Your task to perform on an android device: remove spam from my inbox in the gmail app Image 0: 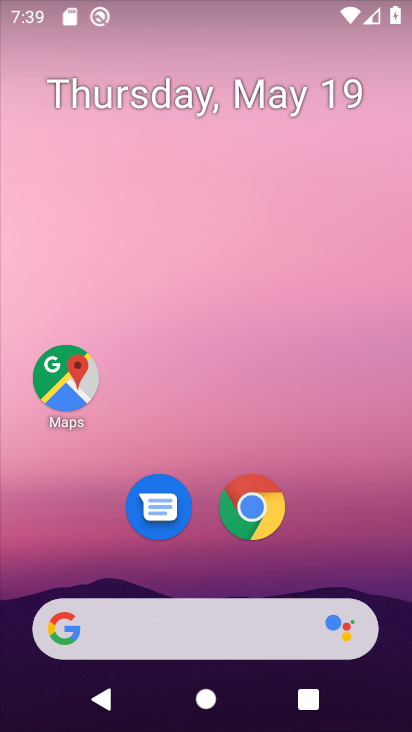
Step 0: drag from (294, 562) to (253, 121)
Your task to perform on an android device: remove spam from my inbox in the gmail app Image 1: 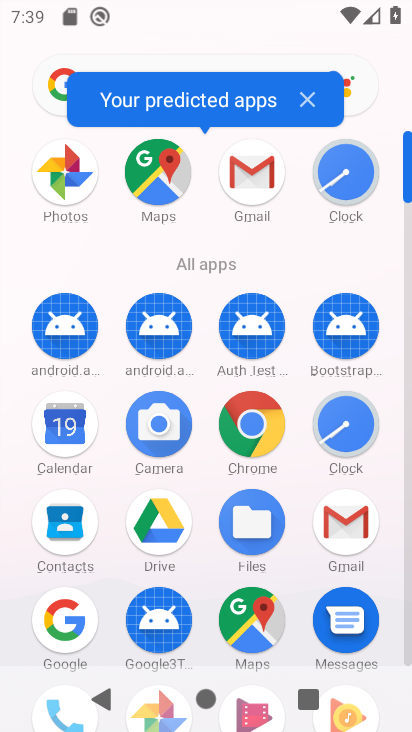
Step 1: click (263, 176)
Your task to perform on an android device: remove spam from my inbox in the gmail app Image 2: 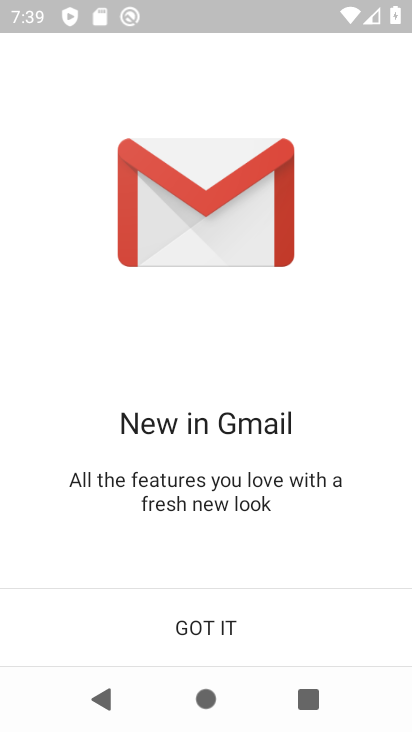
Step 2: click (228, 618)
Your task to perform on an android device: remove spam from my inbox in the gmail app Image 3: 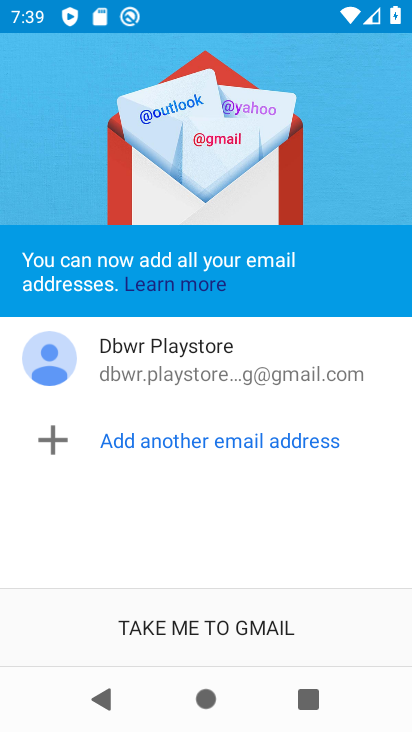
Step 3: click (227, 616)
Your task to perform on an android device: remove spam from my inbox in the gmail app Image 4: 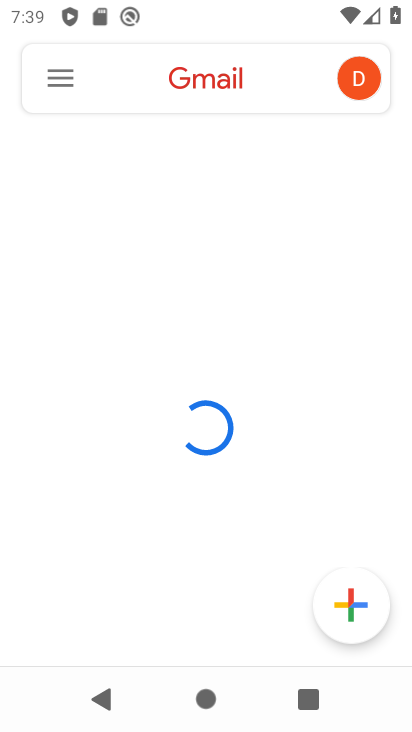
Step 4: click (227, 616)
Your task to perform on an android device: remove spam from my inbox in the gmail app Image 5: 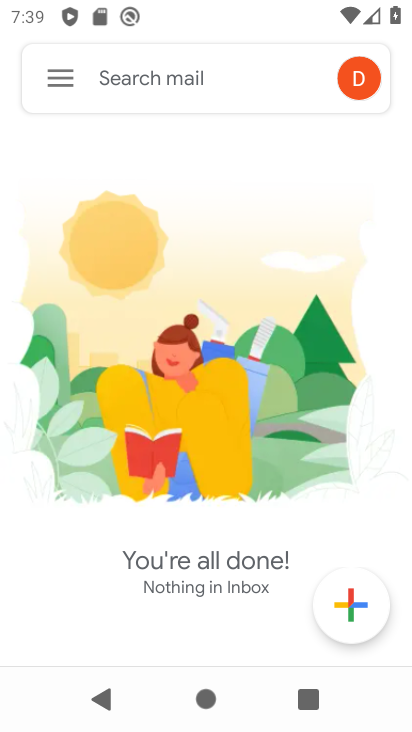
Step 5: task complete